Your task to perform on an android device: Open the calendar and show me this week's events Image 0: 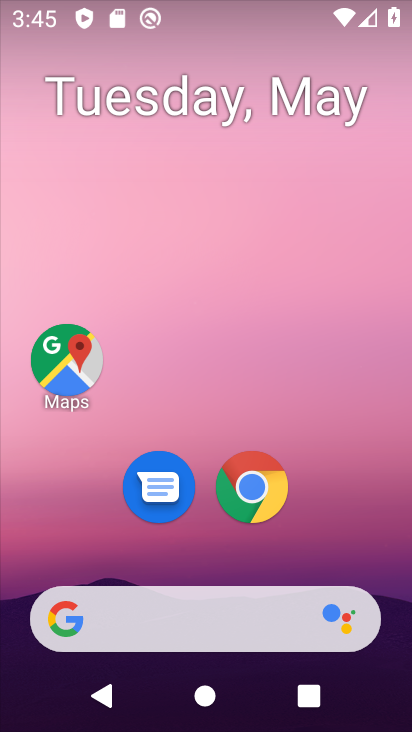
Step 0: drag from (221, 526) to (280, 18)
Your task to perform on an android device: Open the calendar and show me this week's events Image 1: 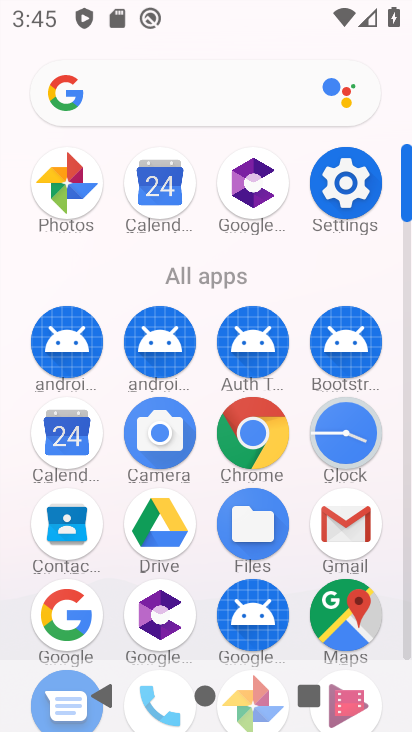
Step 1: drag from (178, 432) to (222, 190)
Your task to perform on an android device: Open the calendar and show me this week's events Image 2: 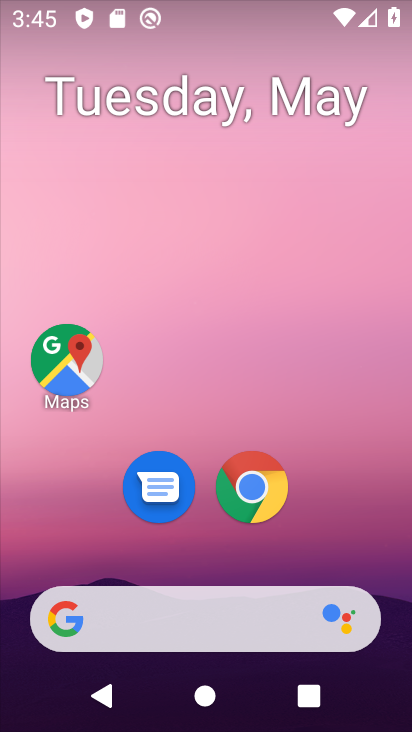
Step 2: drag from (214, 577) to (234, 0)
Your task to perform on an android device: Open the calendar and show me this week's events Image 3: 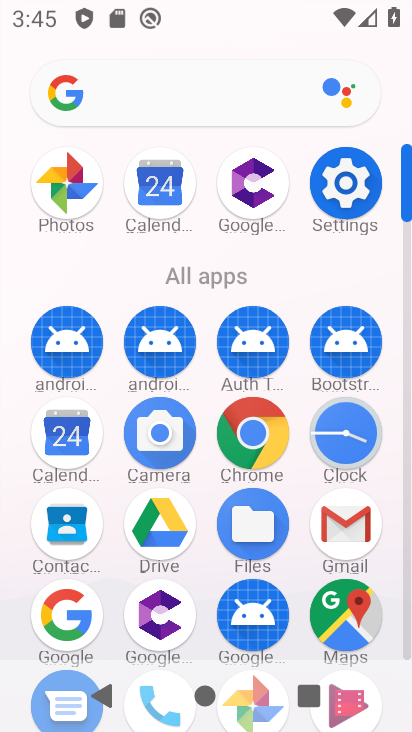
Step 3: click (50, 432)
Your task to perform on an android device: Open the calendar and show me this week's events Image 4: 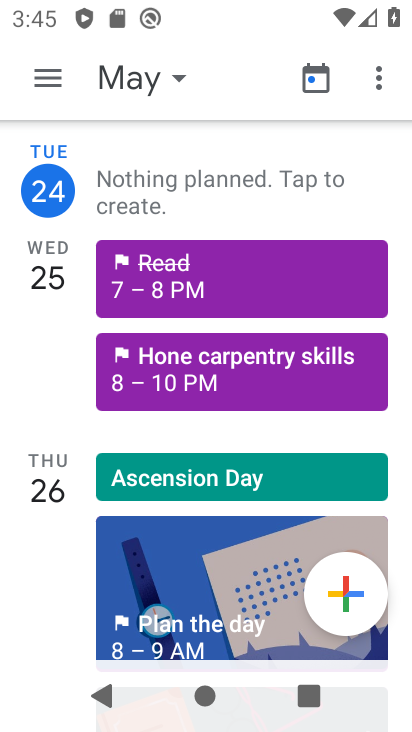
Step 4: click (44, 89)
Your task to perform on an android device: Open the calendar and show me this week's events Image 5: 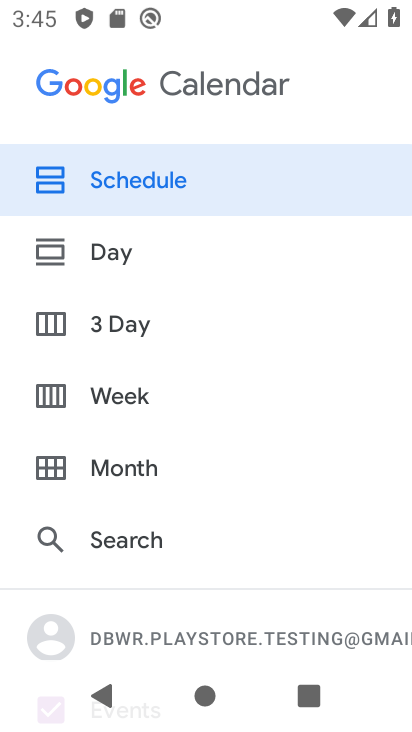
Step 5: click (119, 392)
Your task to perform on an android device: Open the calendar and show me this week's events Image 6: 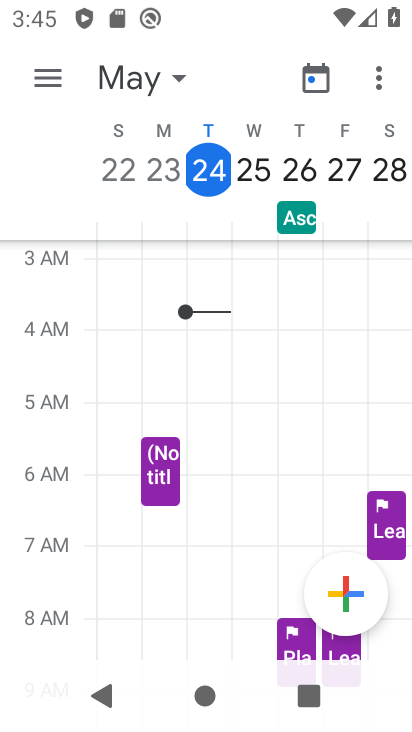
Step 6: click (134, 94)
Your task to perform on an android device: Open the calendar and show me this week's events Image 7: 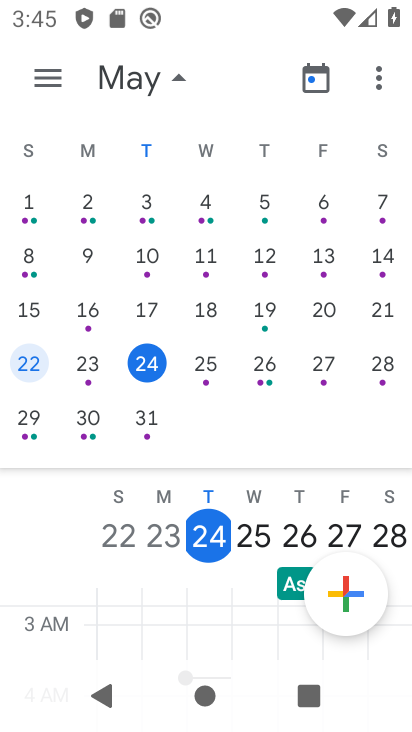
Step 7: click (31, 366)
Your task to perform on an android device: Open the calendar and show me this week's events Image 8: 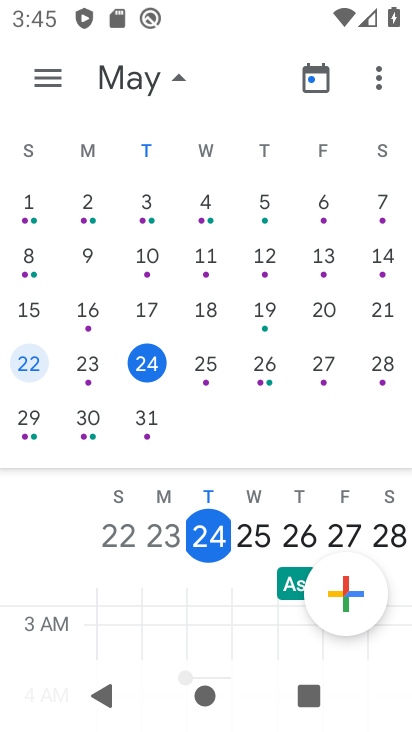
Step 8: drag from (220, 536) to (207, 173)
Your task to perform on an android device: Open the calendar and show me this week's events Image 9: 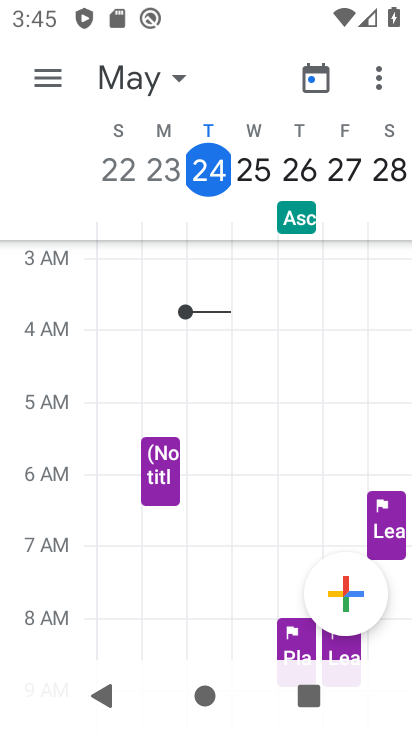
Step 9: drag from (185, 689) to (300, 19)
Your task to perform on an android device: Open the calendar and show me this week's events Image 10: 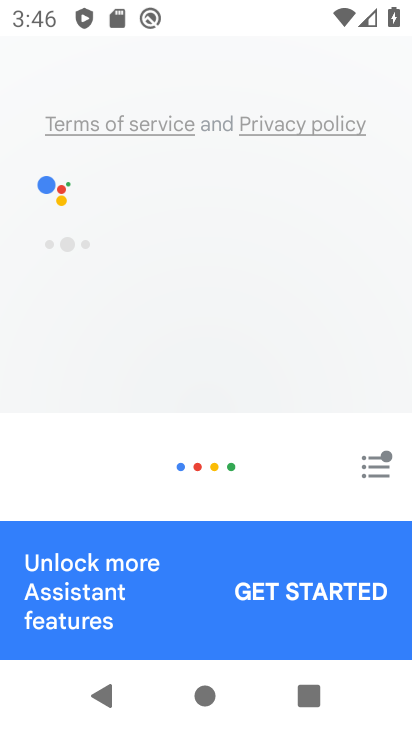
Step 10: click (258, 17)
Your task to perform on an android device: Open the calendar and show me this week's events Image 11: 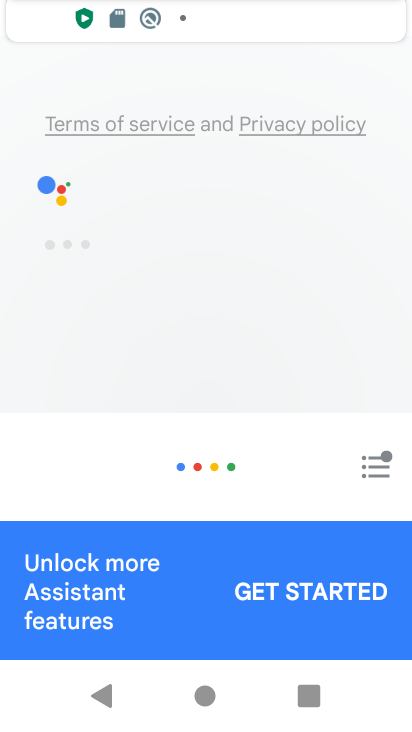
Step 11: task complete